Your task to perform on an android device: toggle improve location accuracy Image 0: 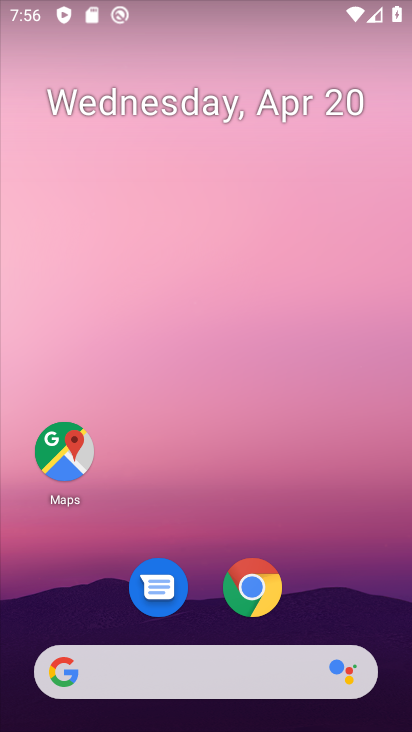
Step 0: drag from (348, 603) to (342, 177)
Your task to perform on an android device: toggle improve location accuracy Image 1: 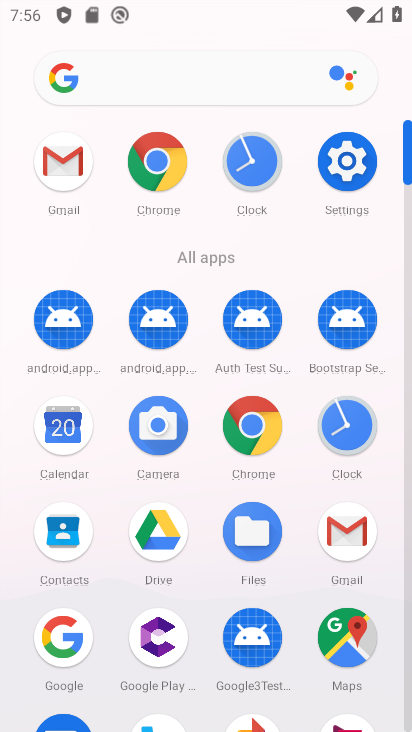
Step 1: click (360, 180)
Your task to perform on an android device: toggle improve location accuracy Image 2: 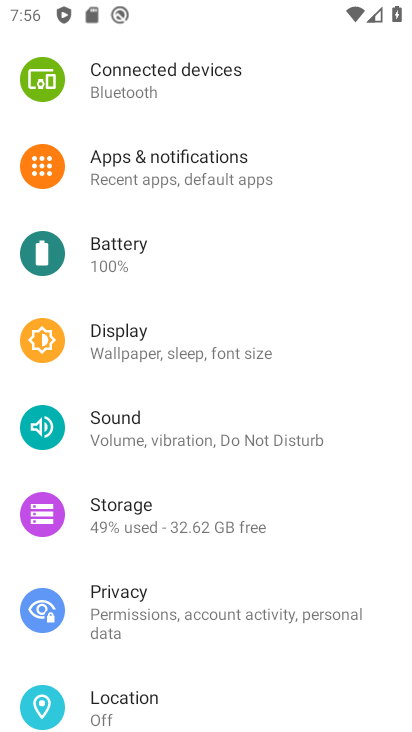
Step 2: drag from (340, 511) to (353, 277)
Your task to perform on an android device: toggle improve location accuracy Image 3: 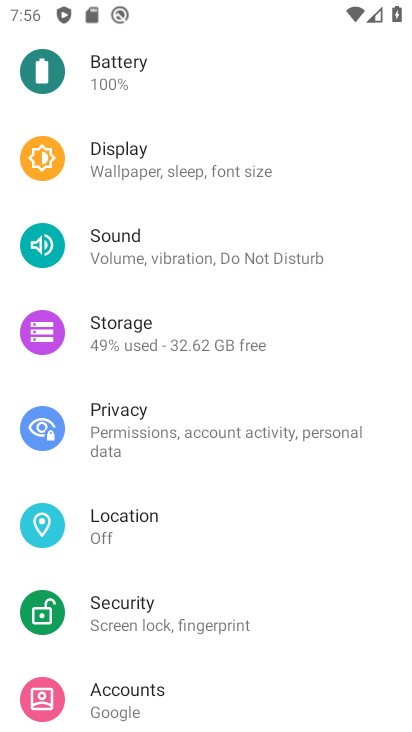
Step 3: drag from (356, 579) to (387, 276)
Your task to perform on an android device: toggle improve location accuracy Image 4: 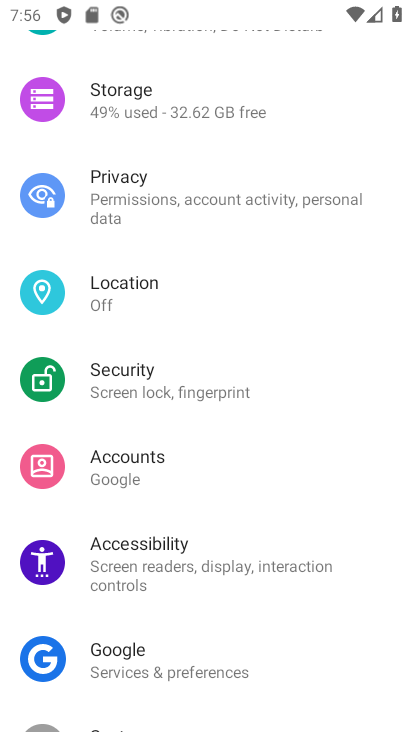
Step 4: drag from (350, 606) to (375, 329)
Your task to perform on an android device: toggle improve location accuracy Image 5: 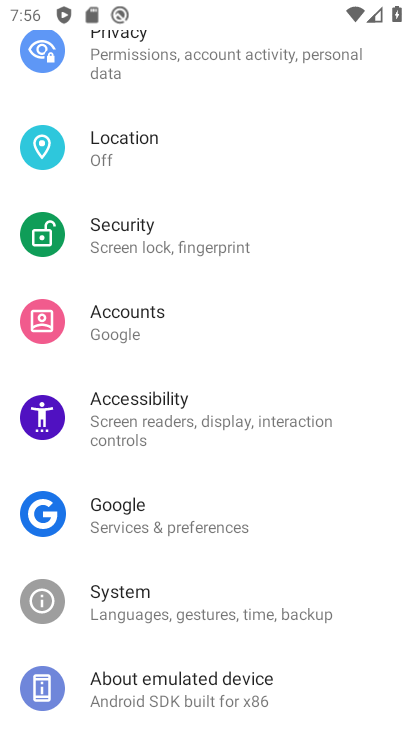
Step 5: drag from (367, 642) to (359, 396)
Your task to perform on an android device: toggle improve location accuracy Image 6: 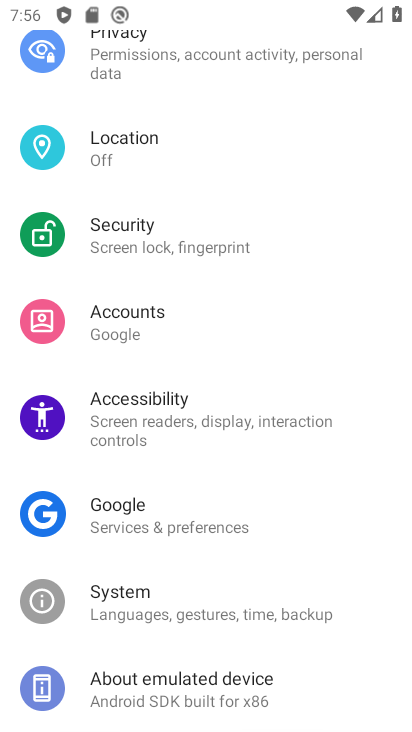
Step 6: drag from (367, 277) to (366, 433)
Your task to perform on an android device: toggle improve location accuracy Image 7: 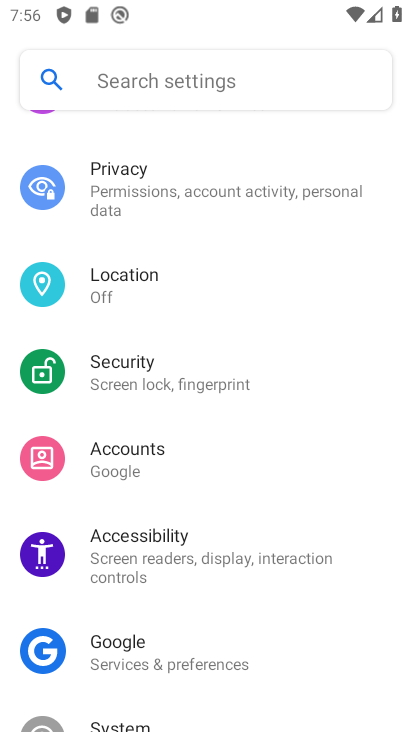
Step 7: drag from (366, 262) to (360, 421)
Your task to perform on an android device: toggle improve location accuracy Image 8: 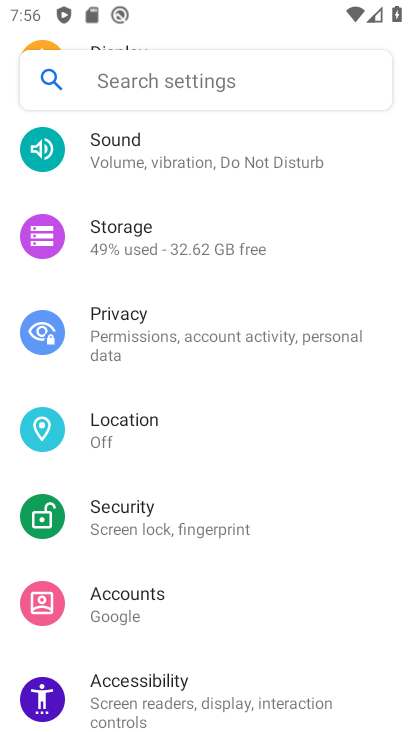
Step 8: click (140, 442)
Your task to perform on an android device: toggle improve location accuracy Image 9: 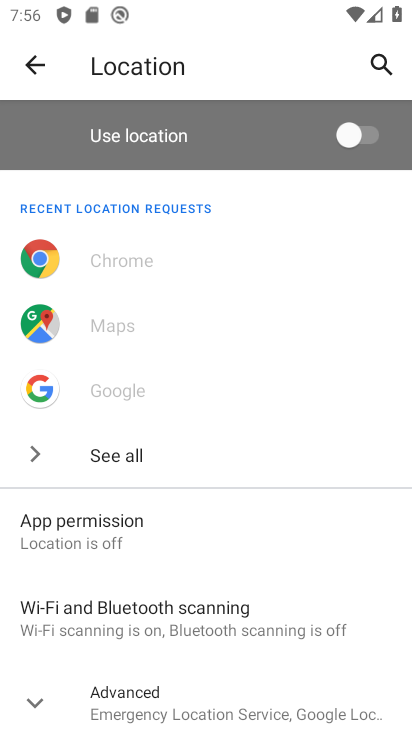
Step 9: drag from (330, 538) to (340, 337)
Your task to perform on an android device: toggle improve location accuracy Image 10: 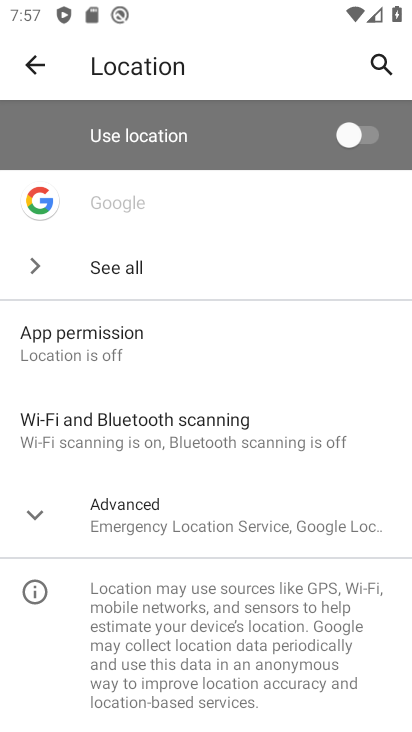
Step 10: click (257, 508)
Your task to perform on an android device: toggle improve location accuracy Image 11: 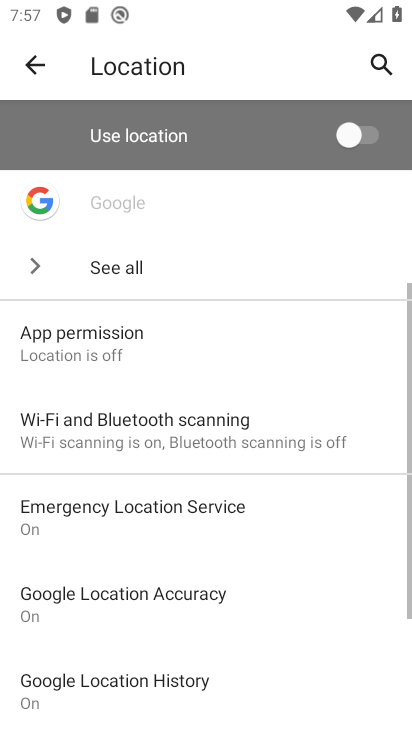
Step 11: drag from (287, 574) to (289, 328)
Your task to perform on an android device: toggle improve location accuracy Image 12: 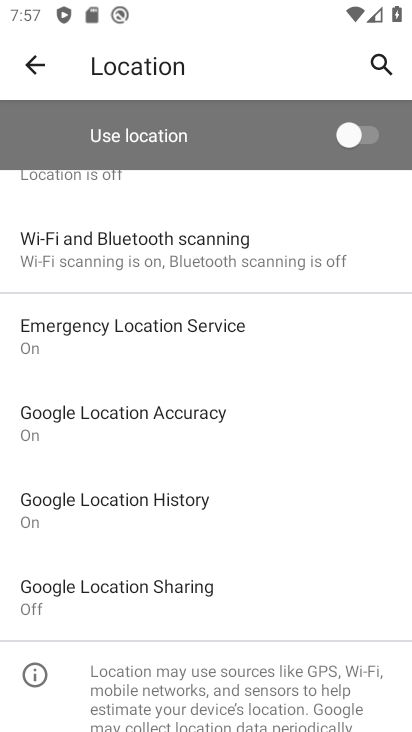
Step 12: drag from (324, 541) to (319, 368)
Your task to perform on an android device: toggle improve location accuracy Image 13: 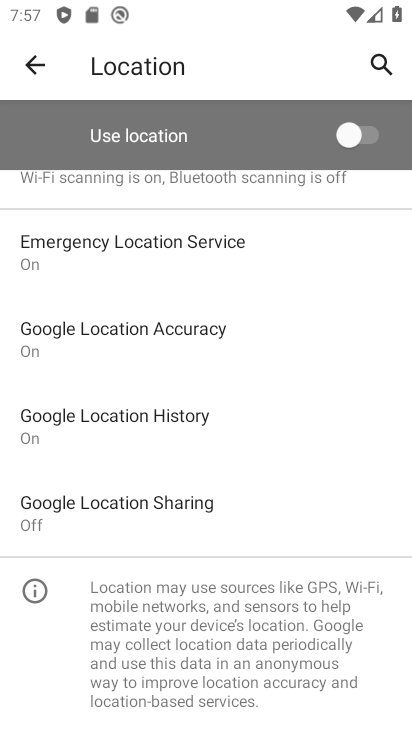
Step 13: drag from (296, 473) to (300, 342)
Your task to perform on an android device: toggle improve location accuracy Image 14: 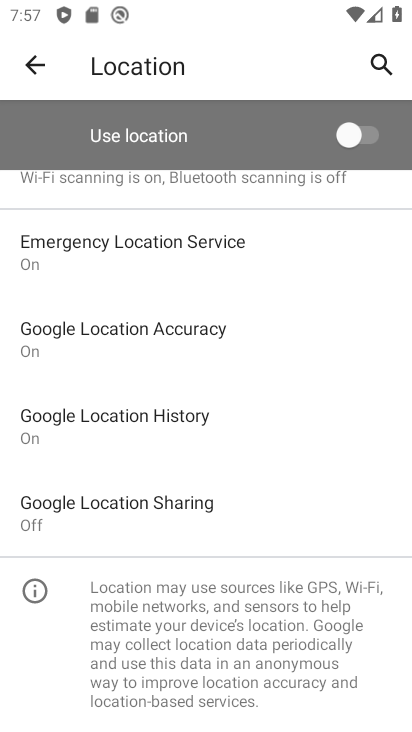
Step 14: click (148, 328)
Your task to perform on an android device: toggle improve location accuracy Image 15: 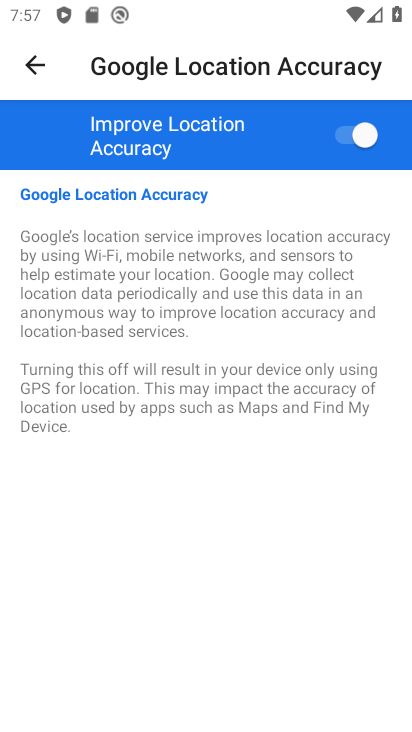
Step 15: click (362, 131)
Your task to perform on an android device: toggle improve location accuracy Image 16: 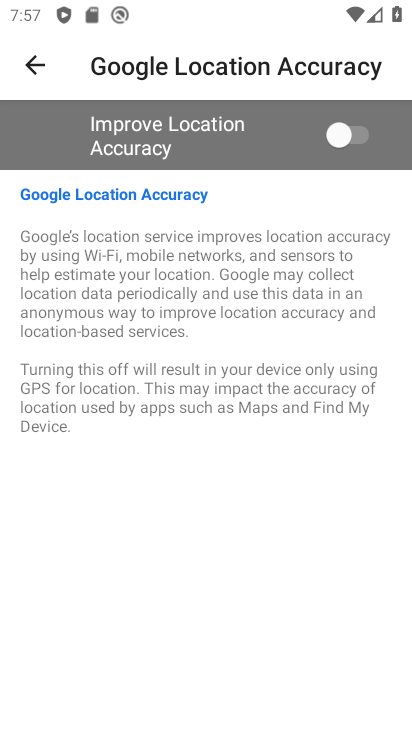
Step 16: task complete